Your task to perform on an android device: install app "LinkedIn" Image 0: 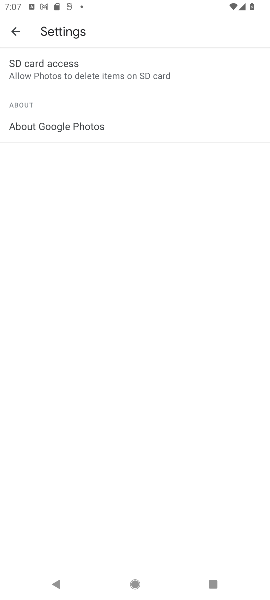
Step 0: press home button
Your task to perform on an android device: install app "LinkedIn" Image 1: 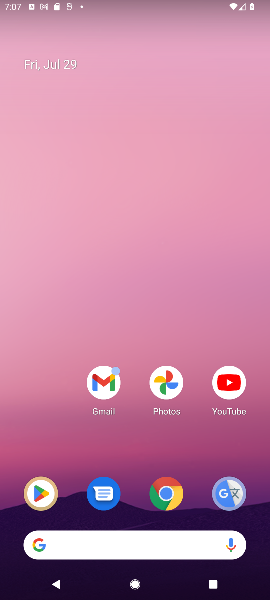
Step 1: drag from (161, 569) to (166, 146)
Your task to perform on an android device: install app "LinkedIn" Image 2: 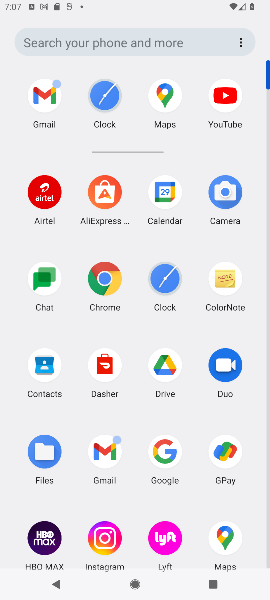
Step 2: drag from (135, 503) to (124, 219)
Your task to perform on an android device: install app "LinkedIn" Image 3: 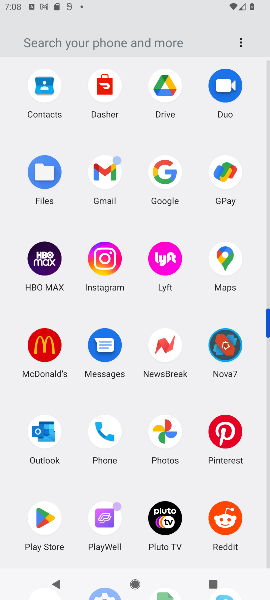
Step 3: click (43, 519)
Your task to perform on an android device: install app "LinkedIn" Image 4: 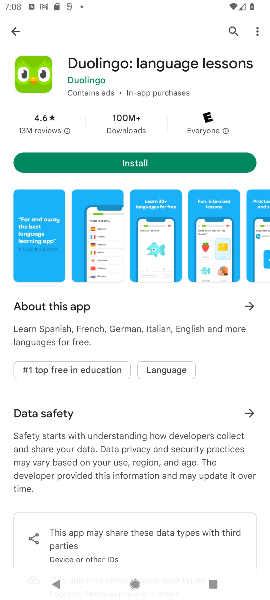
Step 4: click (233, 33)
Your task to perform on an android device: install app "LinkedIn" Image 5: 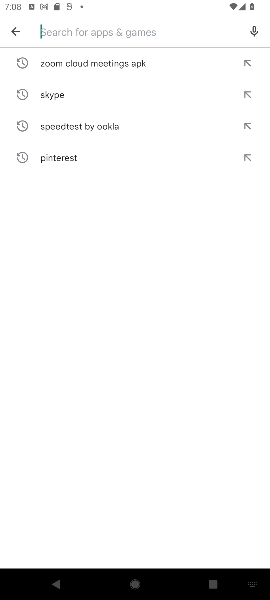
Step 5: type "LinkedIn"
Your task to perform on an android device: install app "LinkedIn" Image 6: 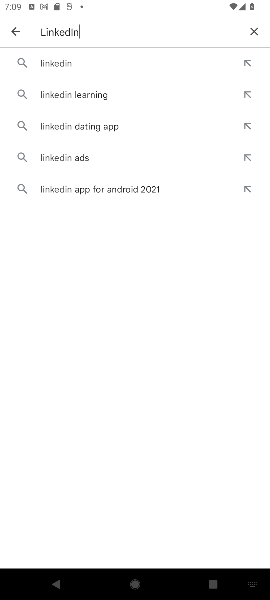
Step 6: click (57, 61)
Your task to perform on an android device: install app "LinkedIn" Image 7: 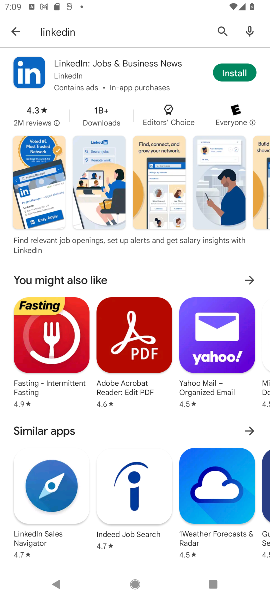
Step 7: click (234, 72)
Your task to perform on an android device: install app "LinkedIn" Image 8: 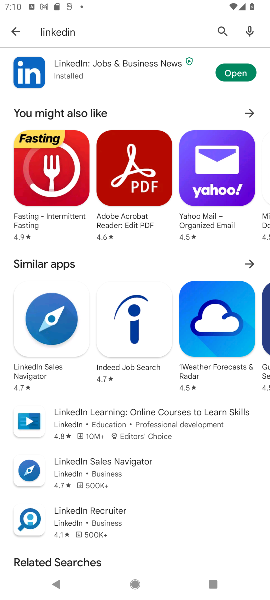
Step 8: task complete